Your task to perform on an android device: install app "Gmail" Image 0: 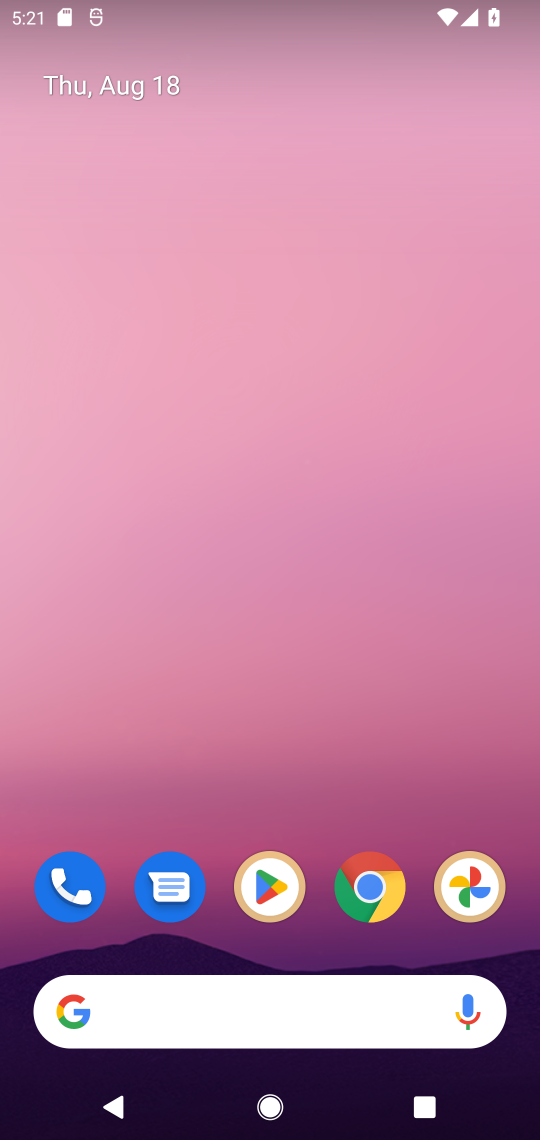
Step 0: drag from (300, 954) to (287, 11)
Your task to perform on an android device: install app "Gmail" Image 1: 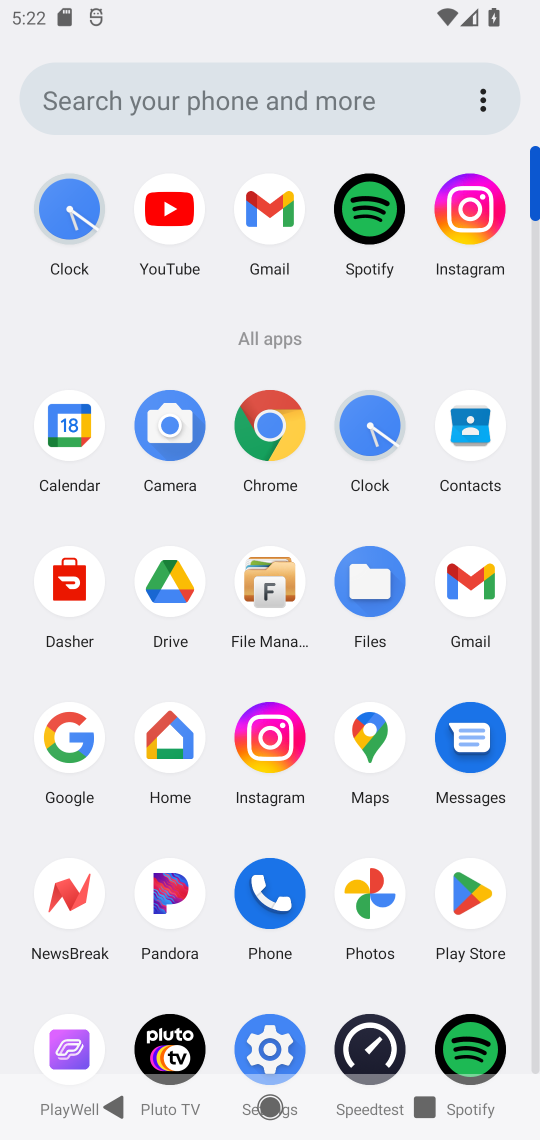
Step 1: click (478, 882)
Your task to perform on an android device: install app "Gmail" Image 2: 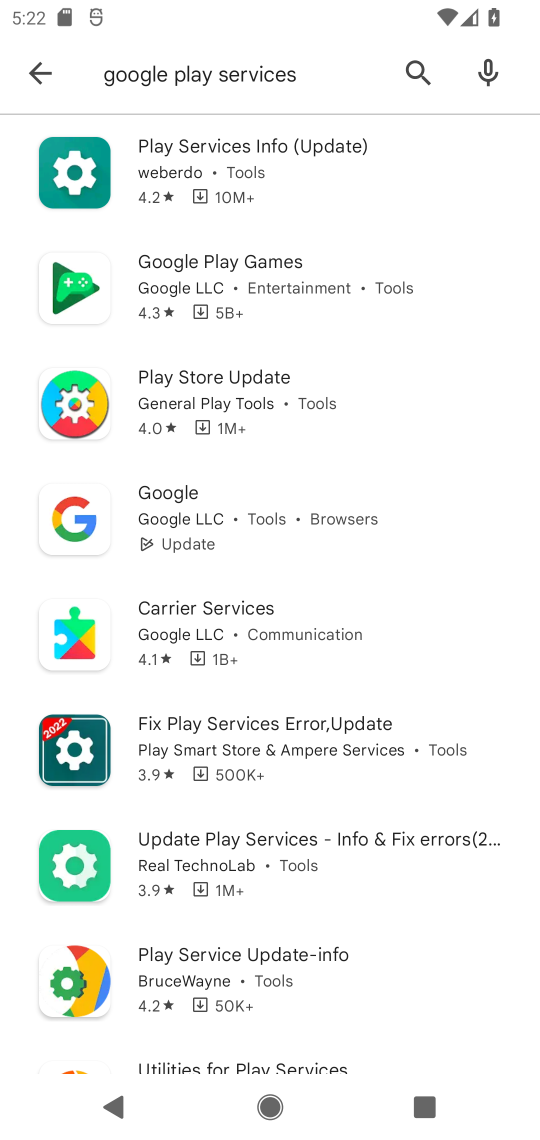
Step 2: click (407, 66)
Your task to perform on an android device: install app "Gmail" Image 3: 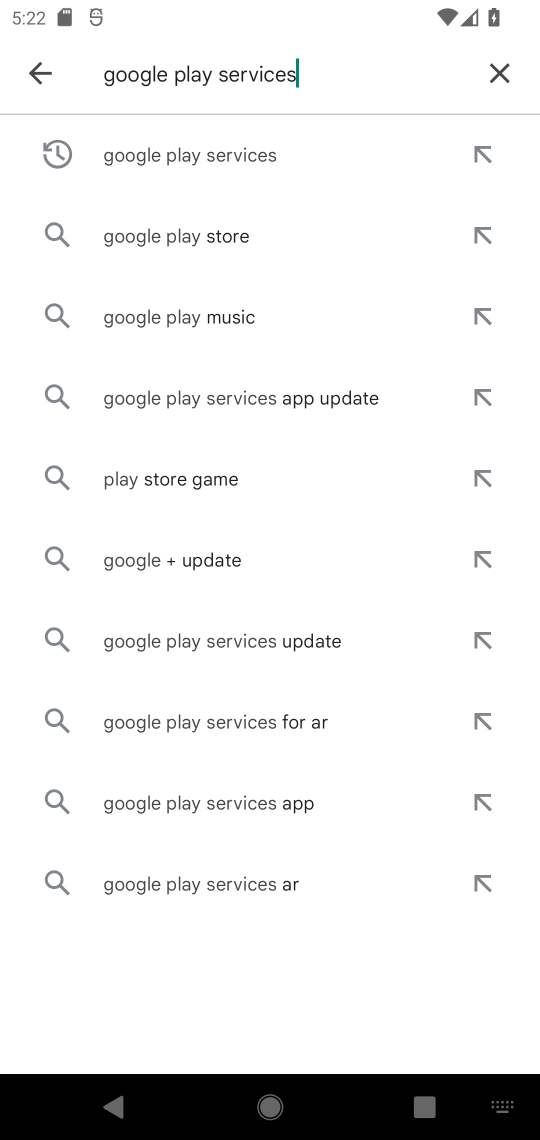
Step 3: click (499, 62)
Your task to perform on an android device: install app "Gmail" Image 4: 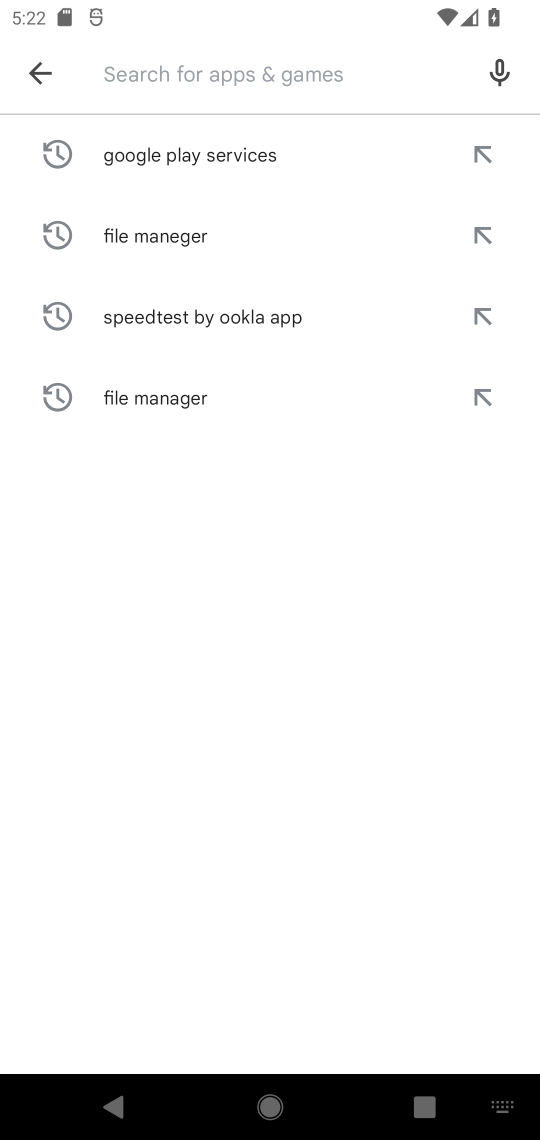
Step 4: type "Gmail"
Your task to perform on an android device: install app "Gmail" Image 5: 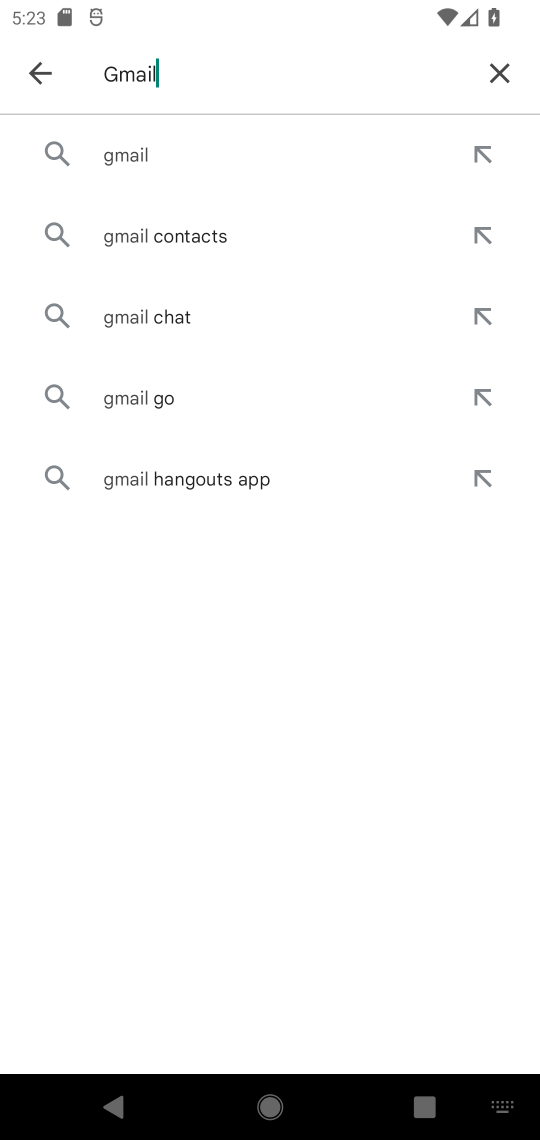
Step 5: click (126, 142)
Your task to perform on an android device: install app "Gmail" Image 6: 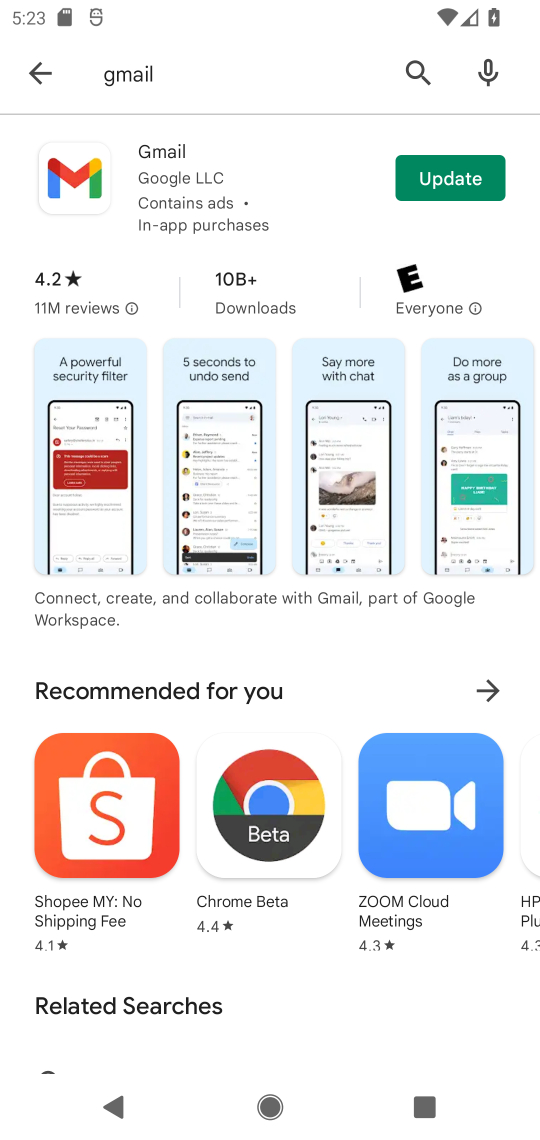
Step 6: click (177, 171)
Your task to perform on an android device: install app "Gmail" Image 7: 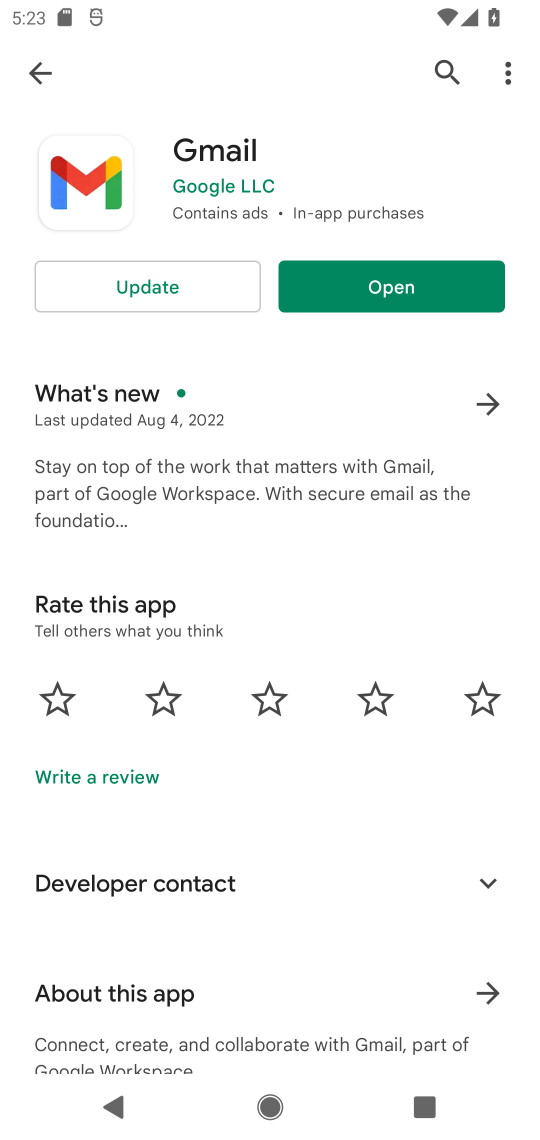
Step 7: task complete